Your task to perform on an android device: Find coffee shops on Maps Image 0: 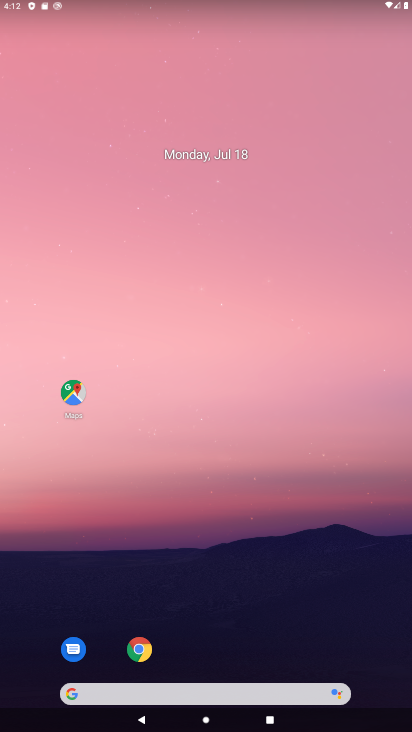
Step 0: click (76, 403)
Your task to perform on an android device: Find coffee shops on Maps Image 1: 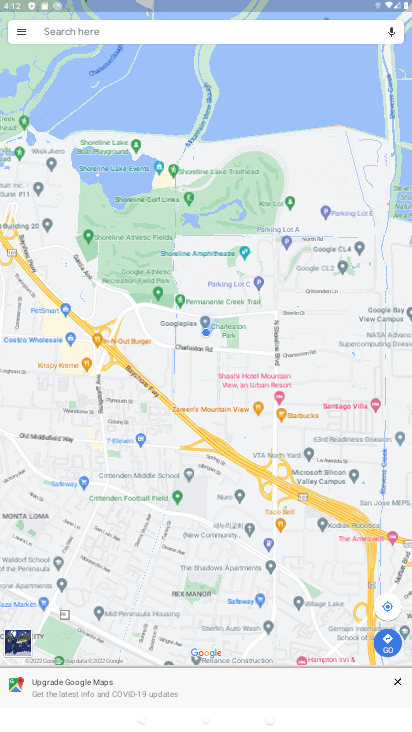
Step 1: click (145, 34)
Your task to perform on an android device: Find coffee shops on Maps Image 2: 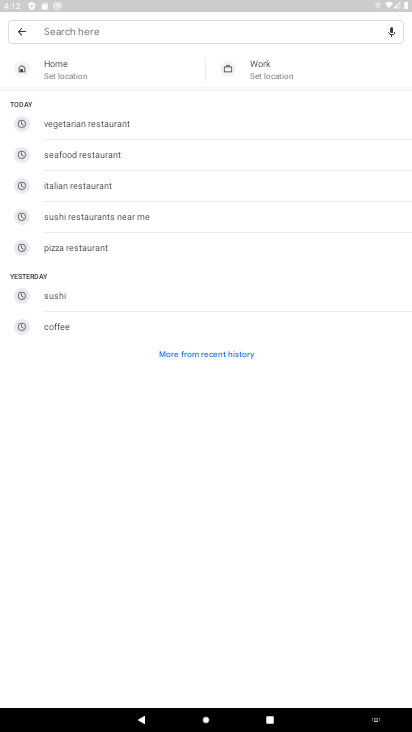
Step 2: click (46, 331)
Your task to perform on an android device: Find coffee shops on Maps Image 3: 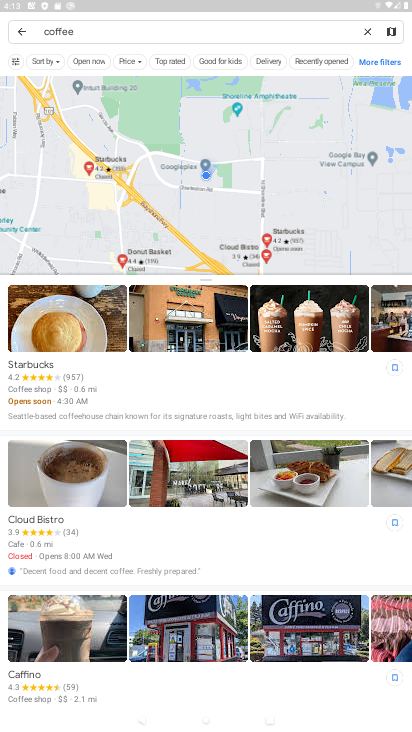
Step 3: task complete